Your task to perform on an android device: turn smart compose on in the gmail app Image 0: 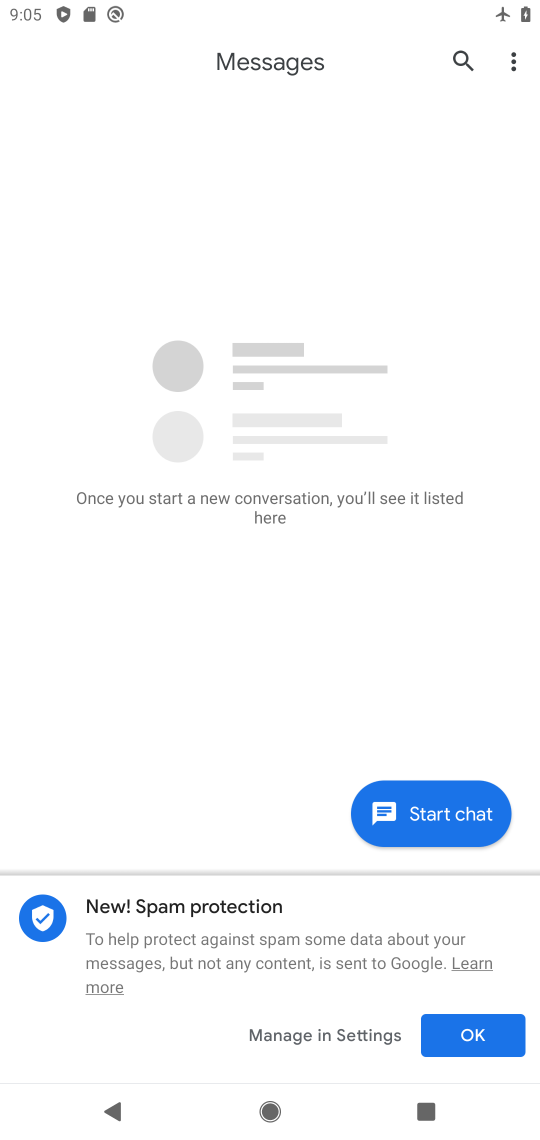
Step 0: press home button
Your task to perform on an android device: turn smart compose on in the gmail app Image 1: 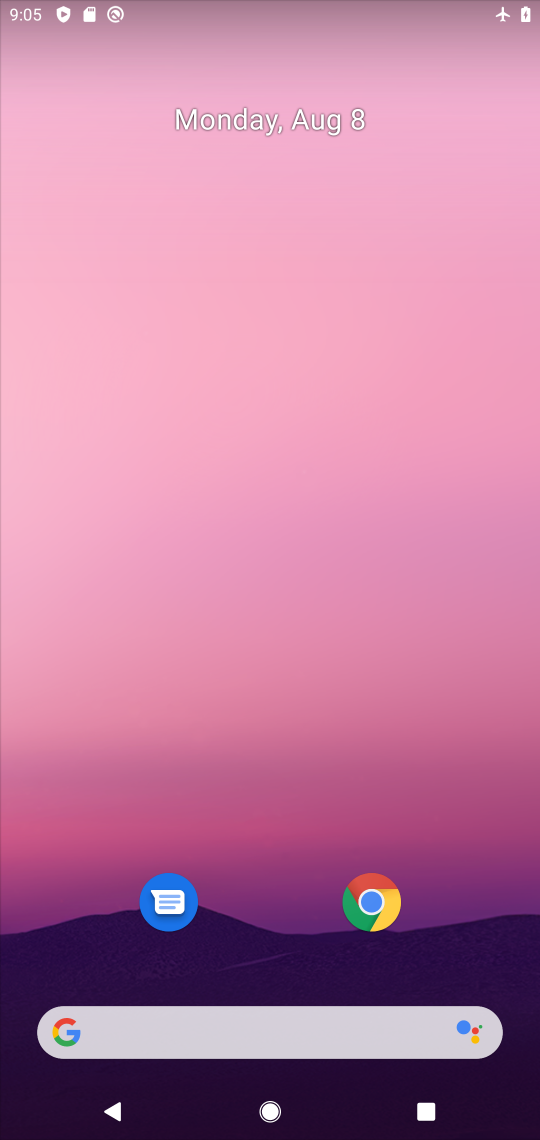
Step 1: drag from (275, 987) to (335, 9)
Your task to perform on an android device: turn smart compose on in the gmail app Image 2: 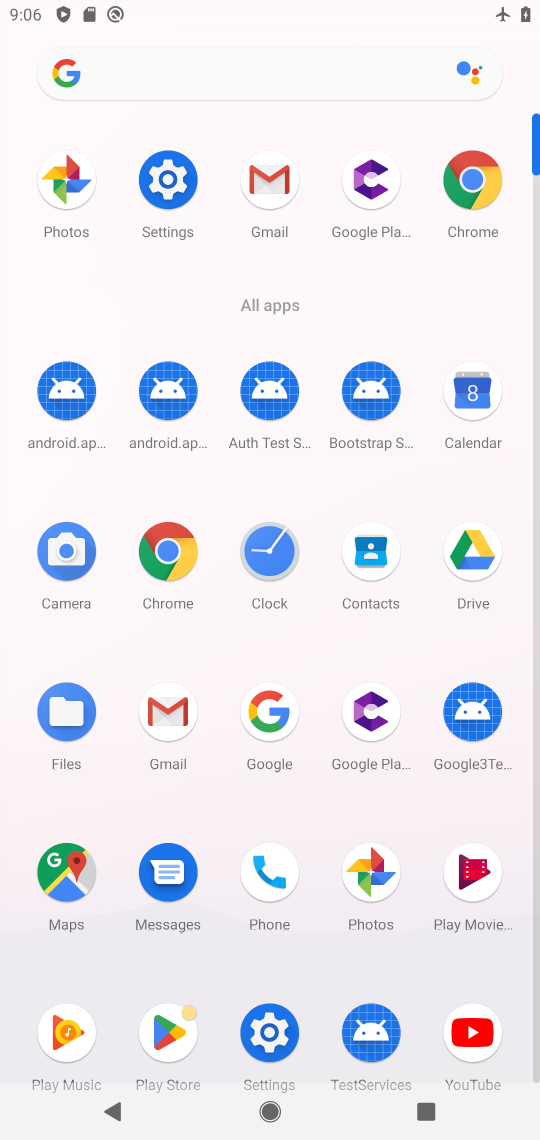
Step 2: click (171, 712)
Your task to perform on an android device: turn smart compose on in the gmail app Image 3: 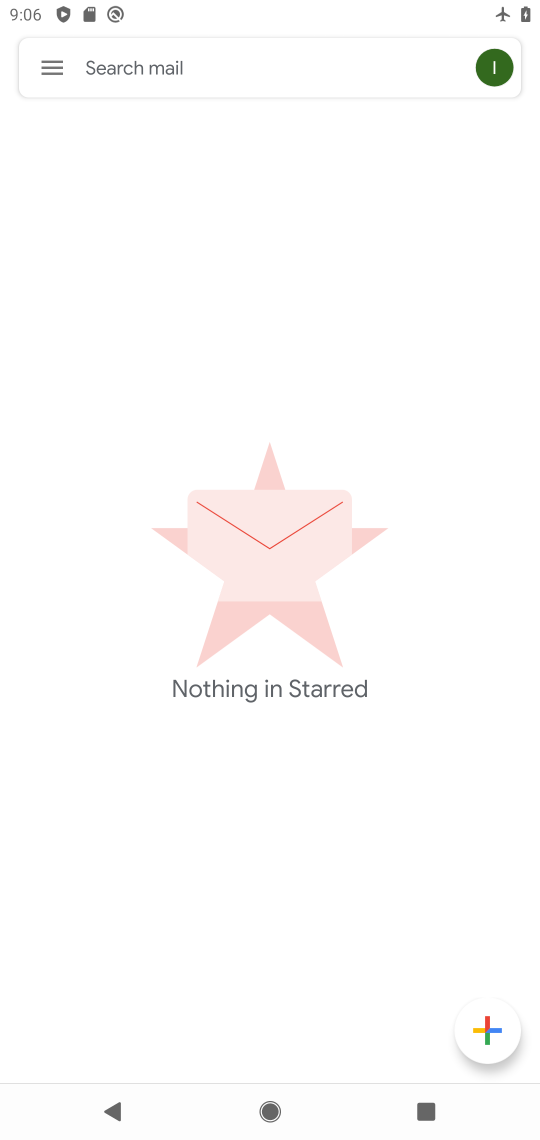
Step 3: click (61, 68)
Your task to perform on an android device: turn smart compose on in the gmail app Image 4: 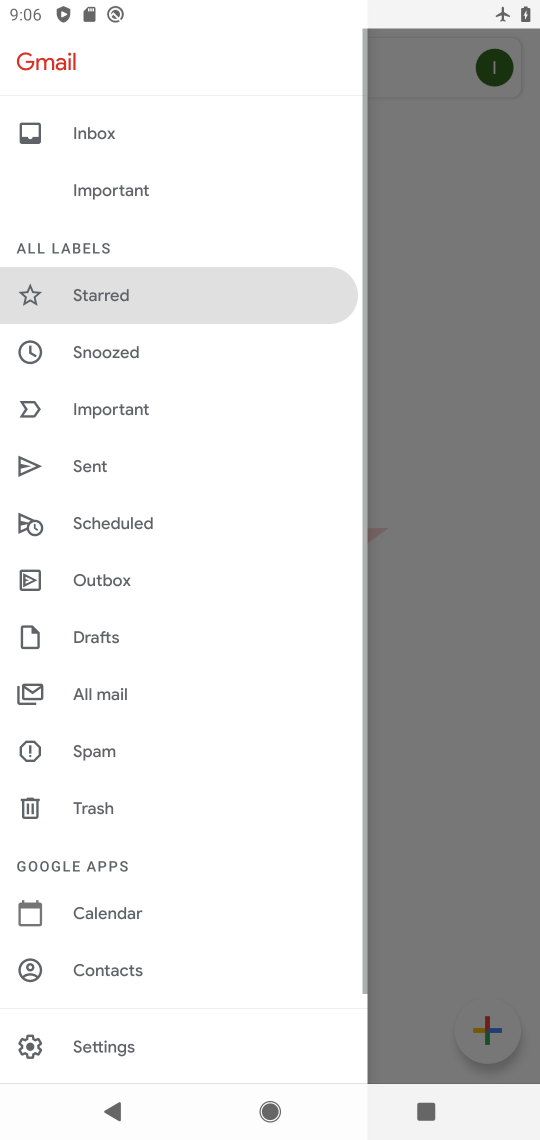
Step 4: click (61, 68)
Your task to perform on an android device: turn smart compose on in the gmail app Image 5: 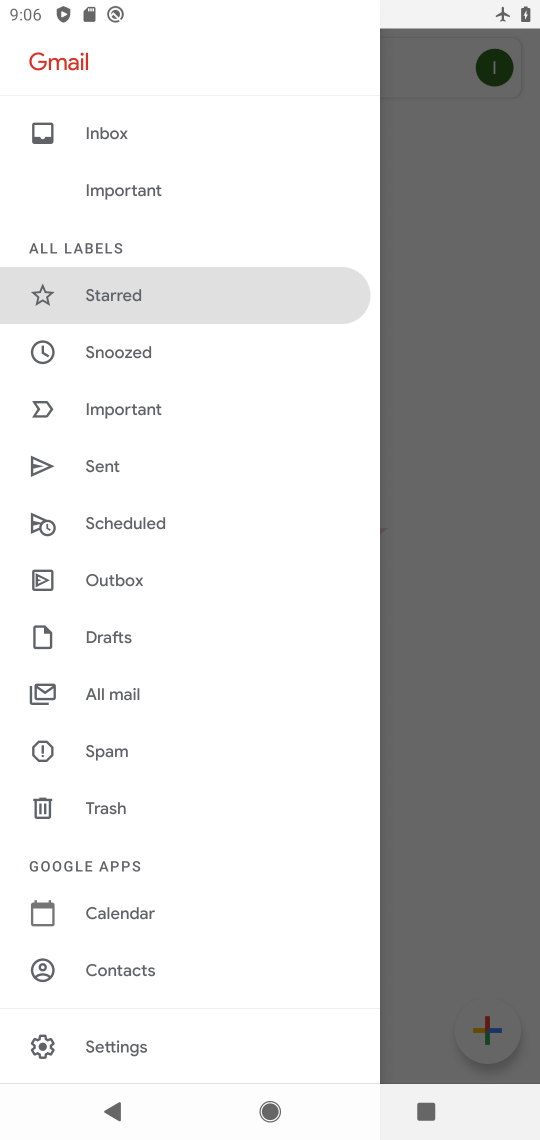
Step 5: click (137, 1044)
Your task to perform on an android device: turn smart compose on in the gmail app Image 6: 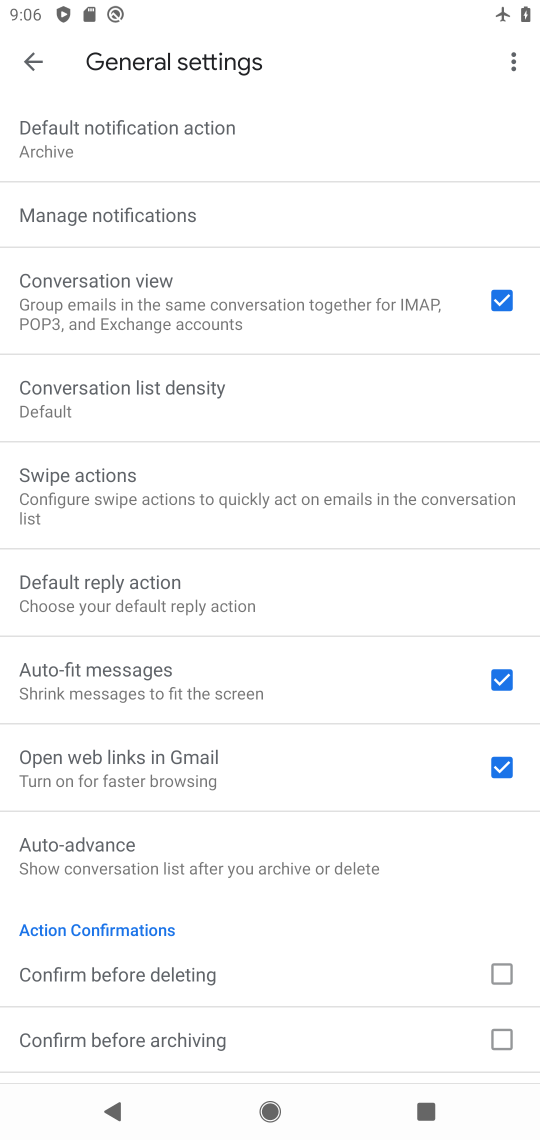
Step 6: click (56, 209)
Your task to perform on an android device: turn smart compose on in the gmail app Image 7: 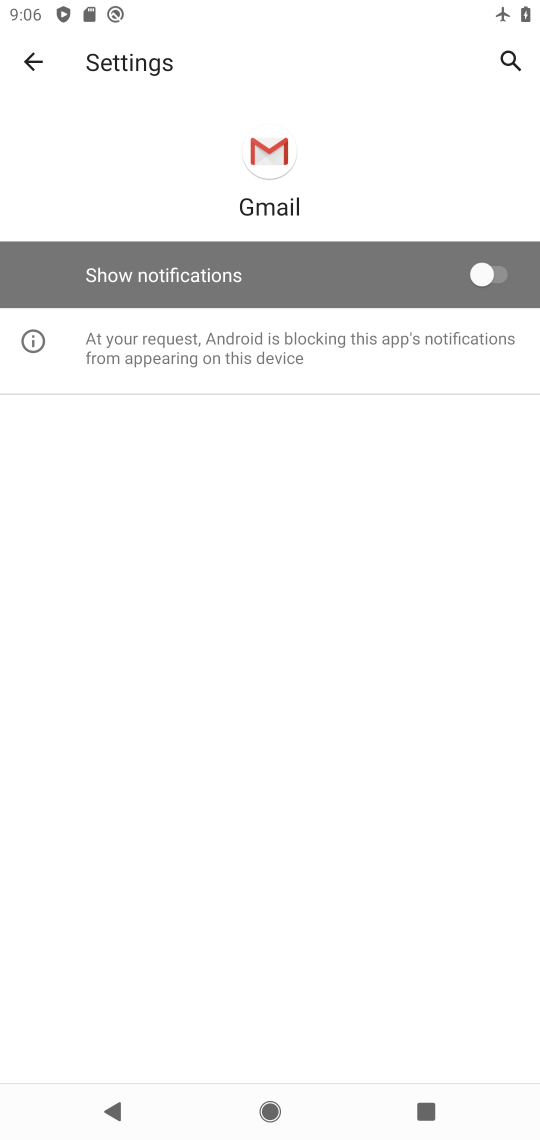
Step 7: click (56, 209)
Your task to perform on an android device: turn smart compose on in the gmail app Image 8: 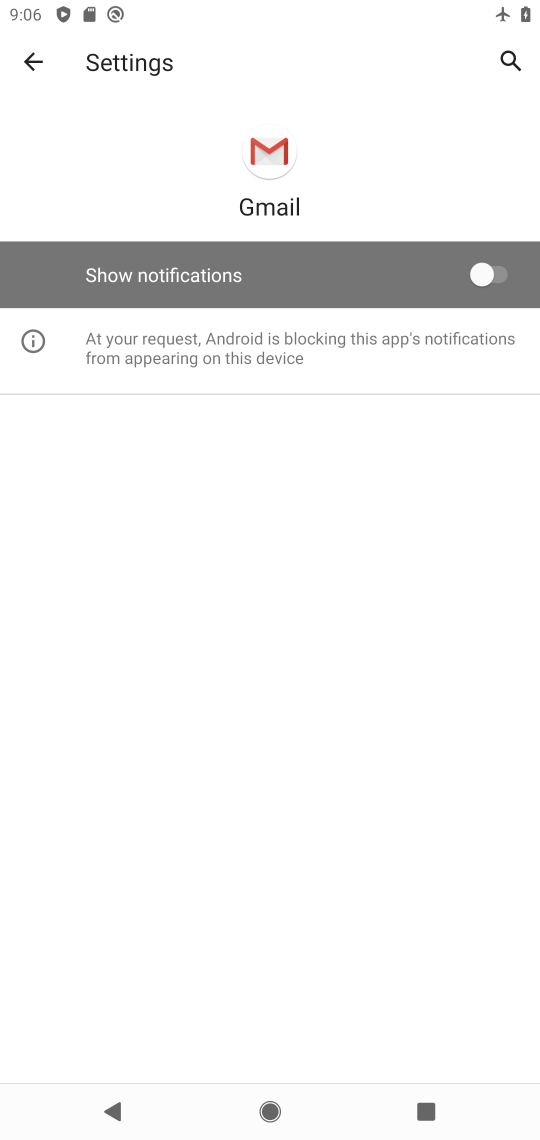
Step 8: click (34, 80)
Your task to perform on an android device: turn smart compose on in the gmail app Image 9: 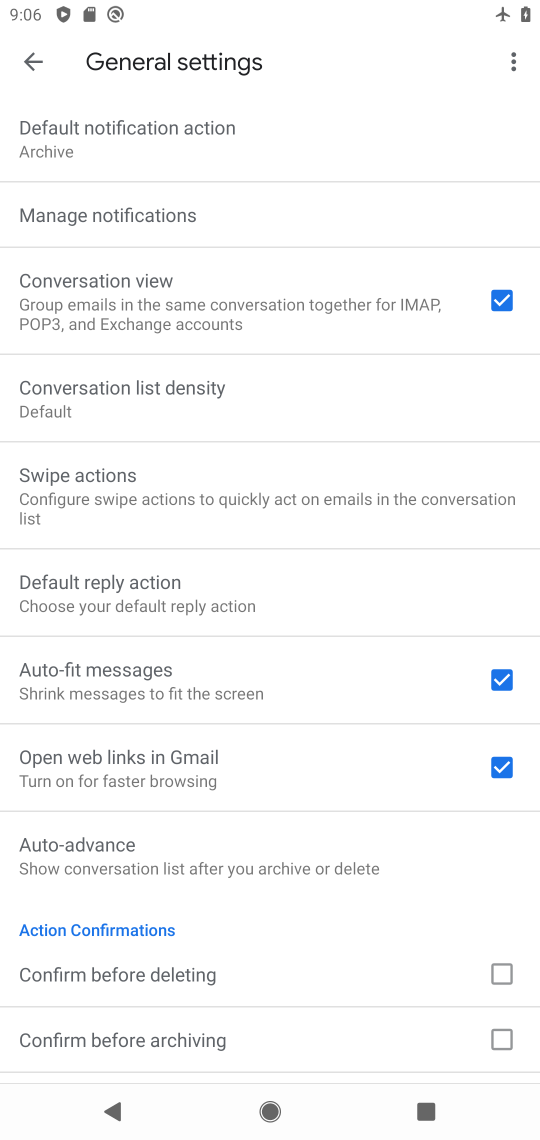
Step 9: drag from (158, 450) to (151, 124)
Your task to perform on an android device: turn smart compose on in the gmail app Image 10: 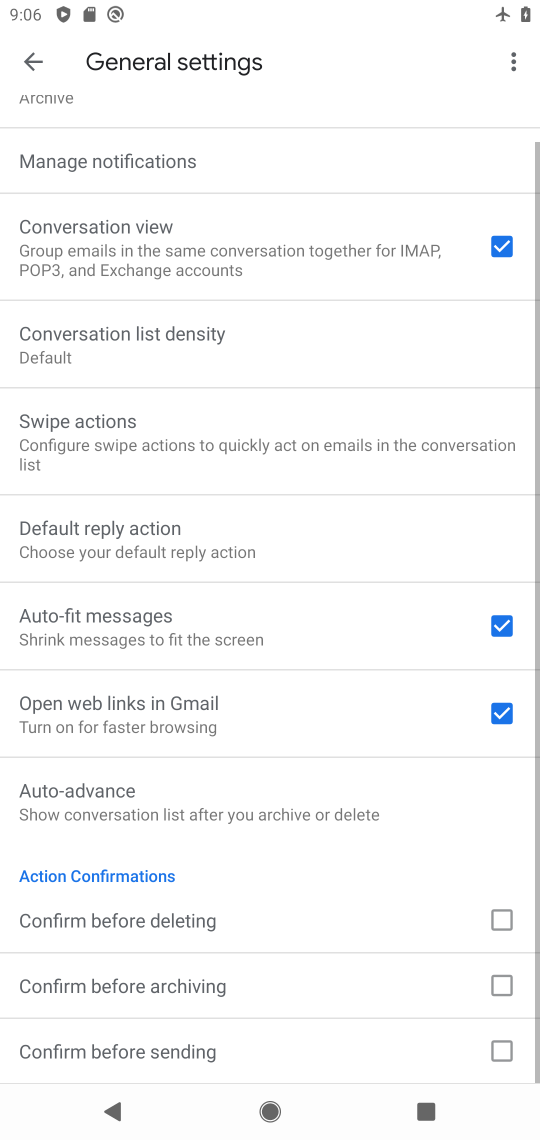
Step 10: click (10, 55)
Your task to perform on an android device: turn smart compose on in the gmail app Image 11: 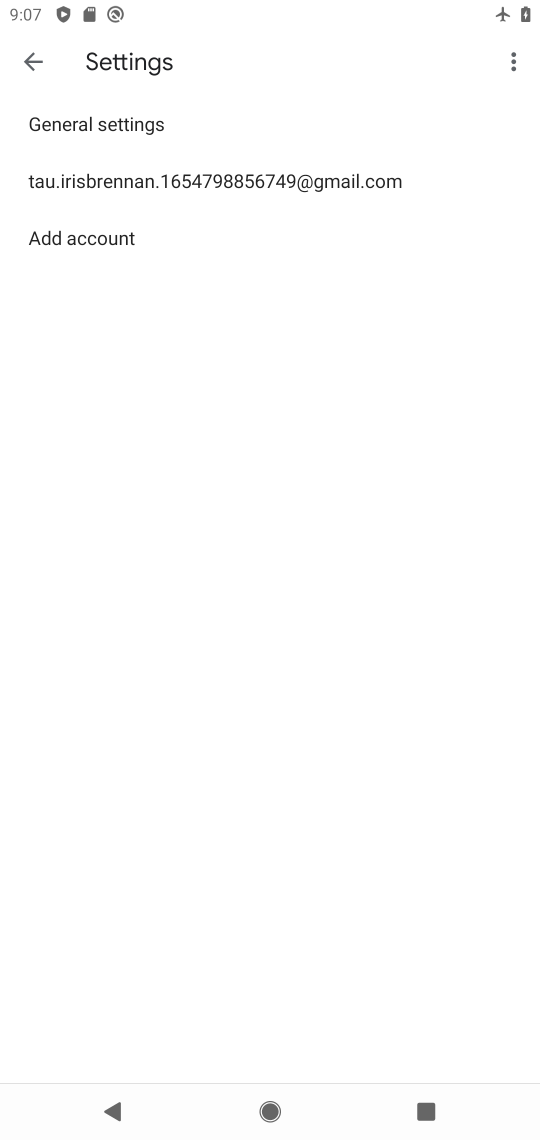
Step 11: click (127, 196)
Your task to perform on an android device: turn smart compose on in the gmail app Image 12: 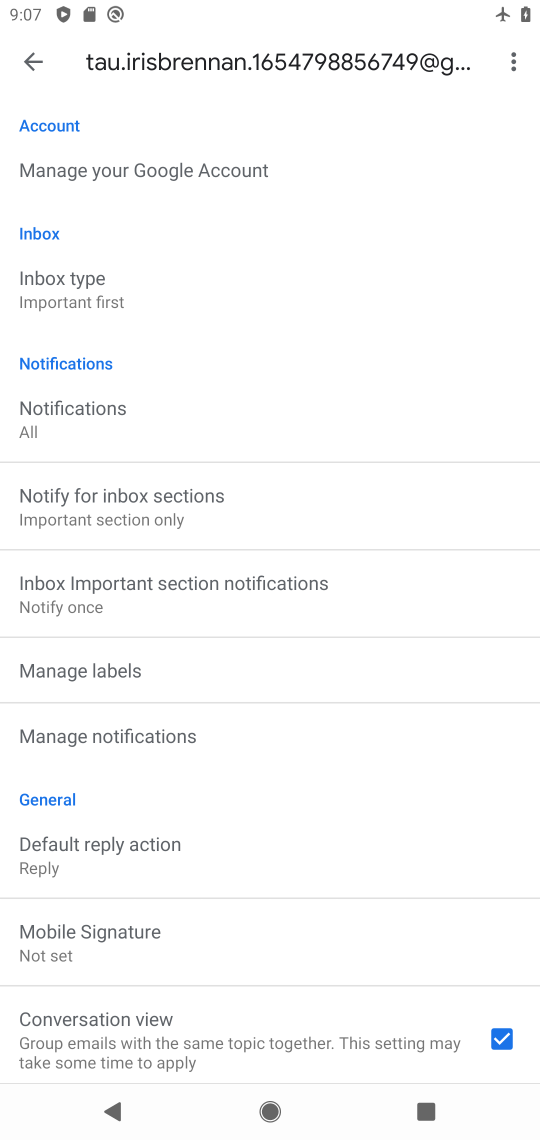
Step 12: task complete